Your task to perform on an android device: Go to Maps Image 0: 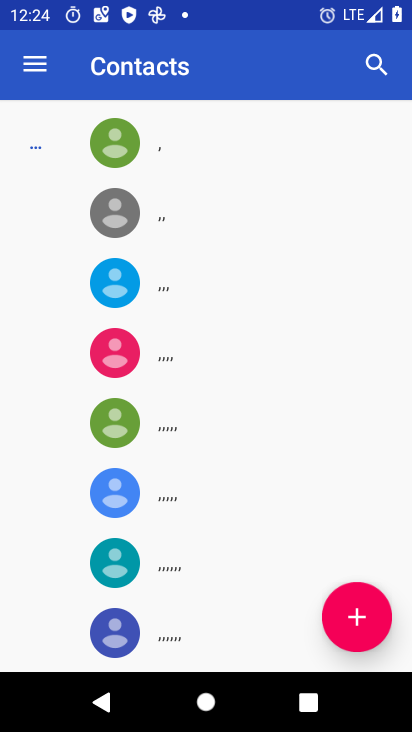
Step 0: press home button
Your task to perform on an android device: Go to Maps Image 1: 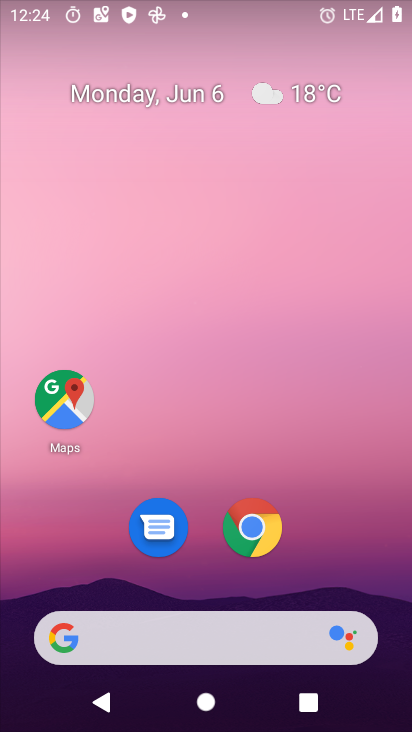
Step 1: click (59, 407)
Your task to perform on an android device: Go to Maps Image 2: 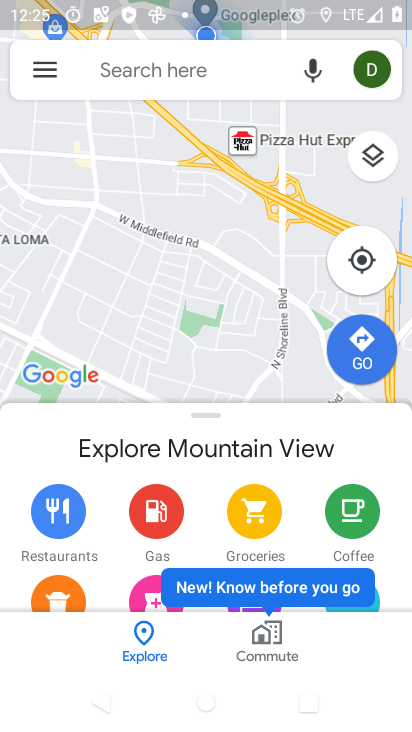
Step 2: task complete